Your task to perform on an android device: Search for a coffee table on IKEA Image 0: 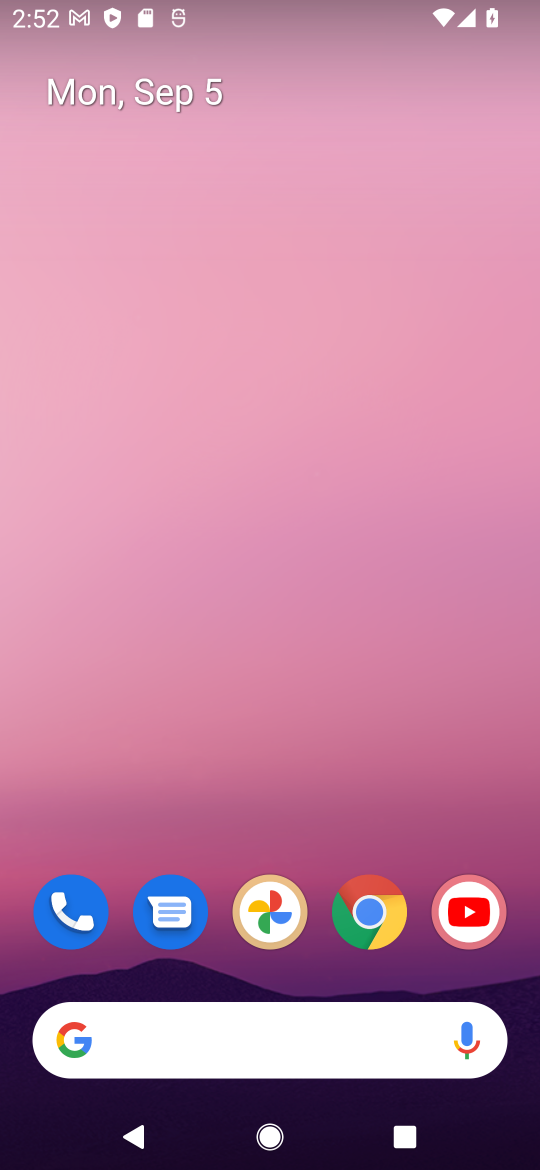
Step 0: click (370, 931)
Your task to perform on an android device: Search for a coffee table on IKEA Image 1: 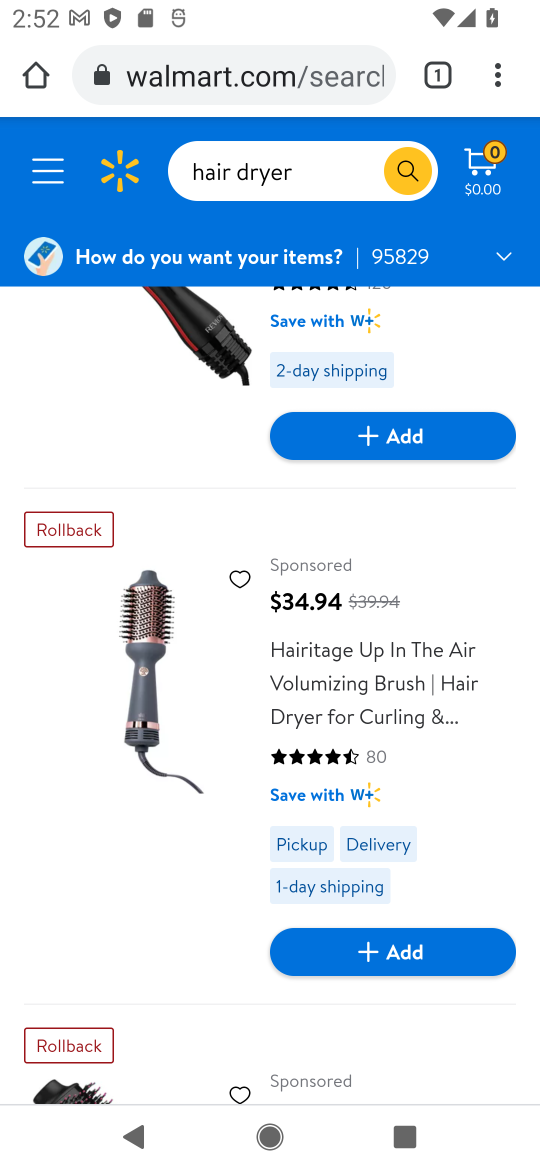
Step 1: click (224, 64)
Your task to perform on an android device: Search for a coffee table on IKEA Image 2: 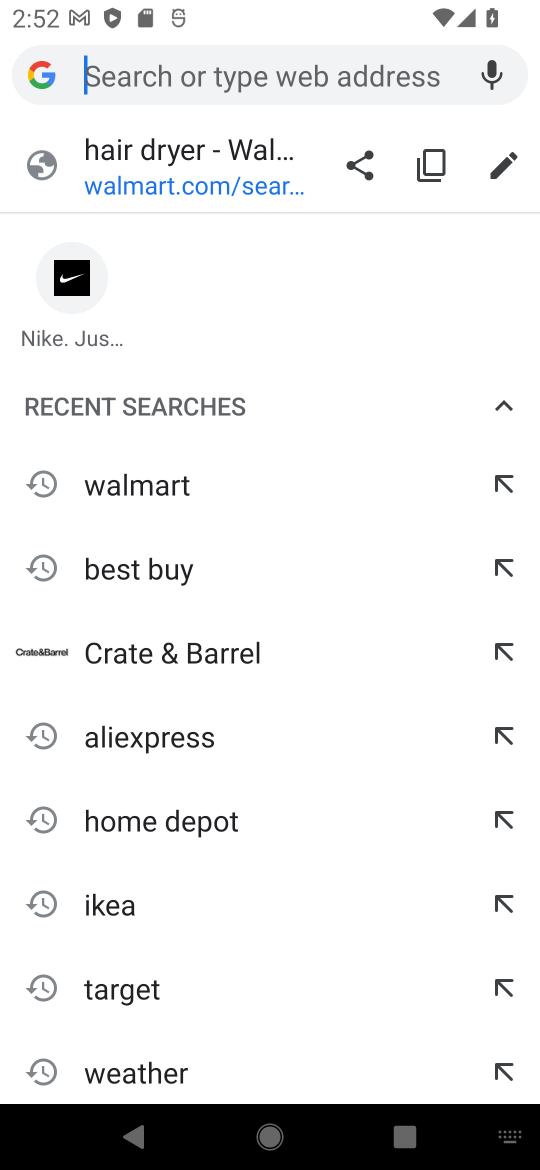
Step 2: type "ikea"
Your task to perform on an android device: Search for a coffee table on IKEA Image 3: 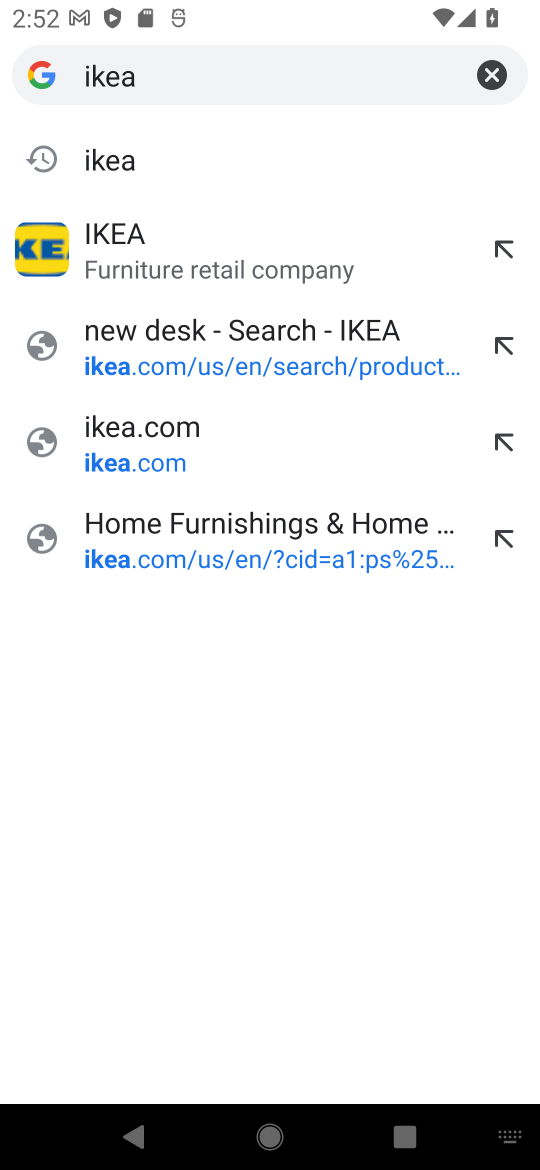
Step 3: press enter
Your task to perform on an android device: Search for a coffee table on IKEA Image 4: 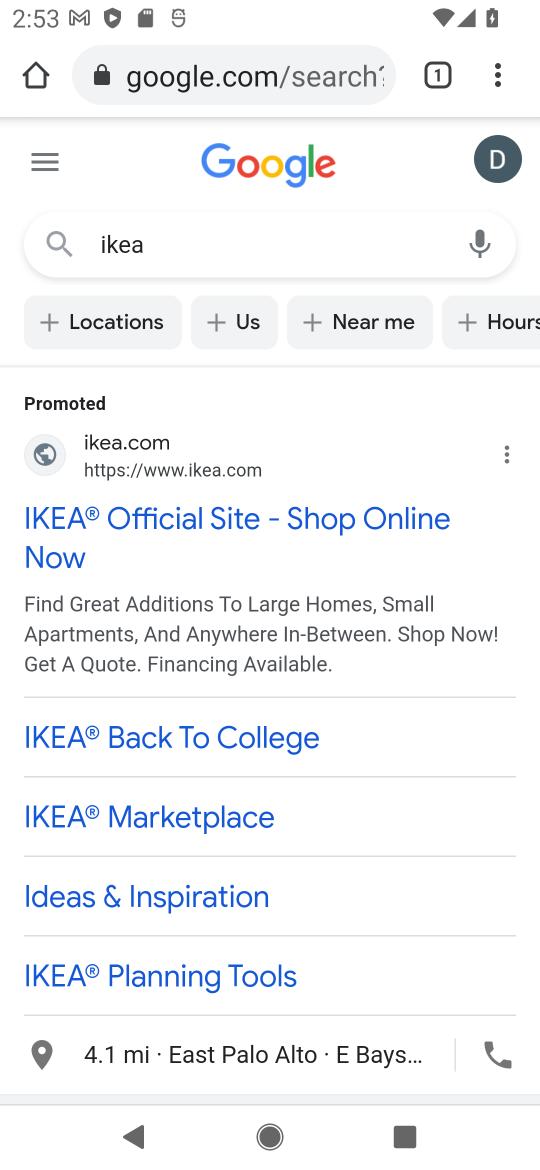
Step 4: click (54, 541)
Your task to perform on an android device: Search for a coffee table on IKEA Image 5: 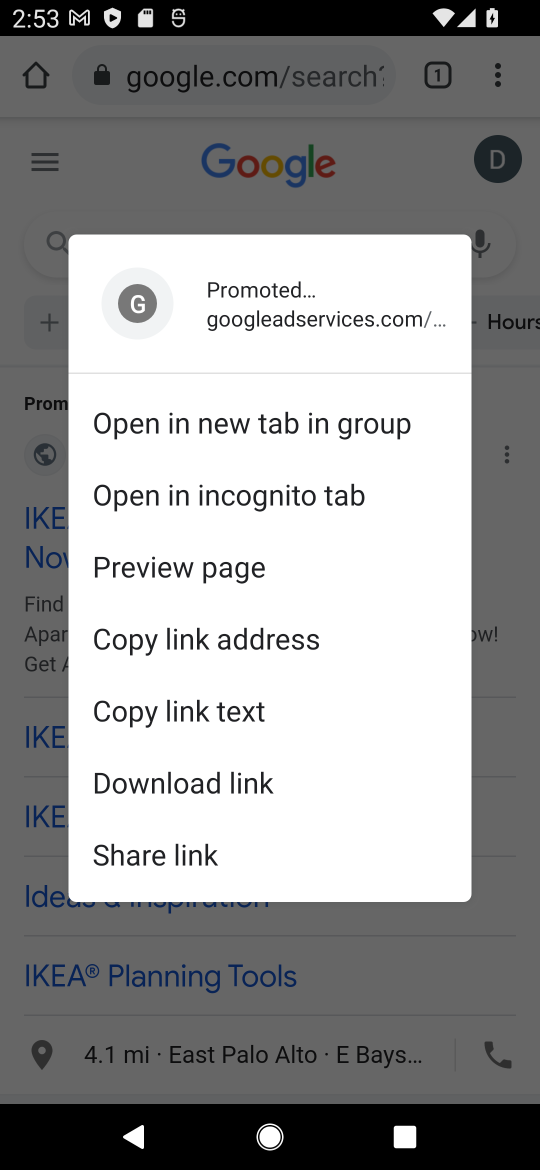
Step 5: click (21, 590)
Your task to perform on an android device: Search for a coffee table on IKEA Image 6: 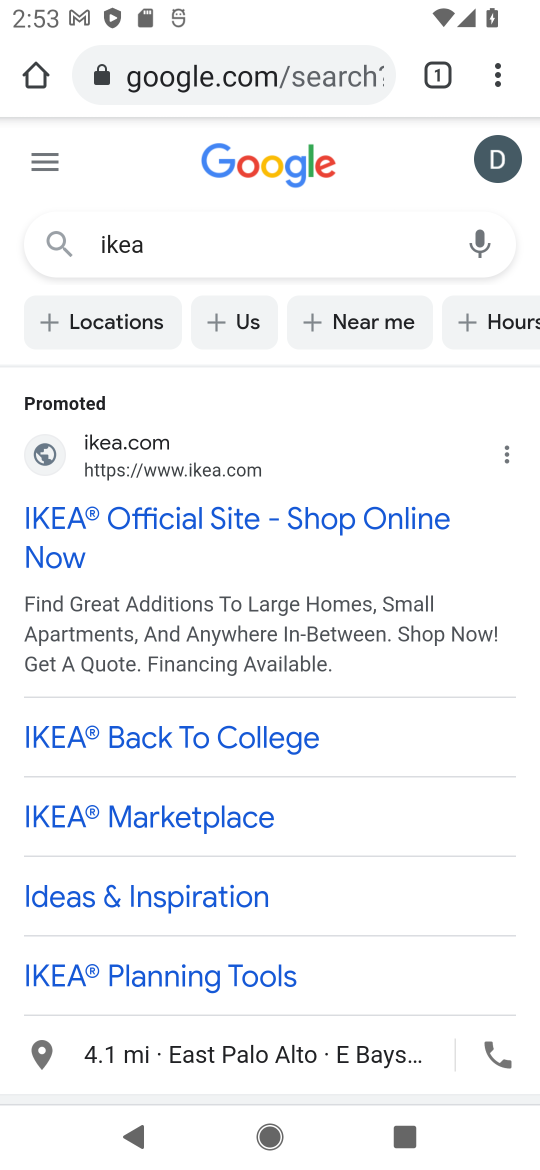
Step 6: click (78, 518)
Your task to perform on an android device: Search for a coffee table on IKEA Image 7: 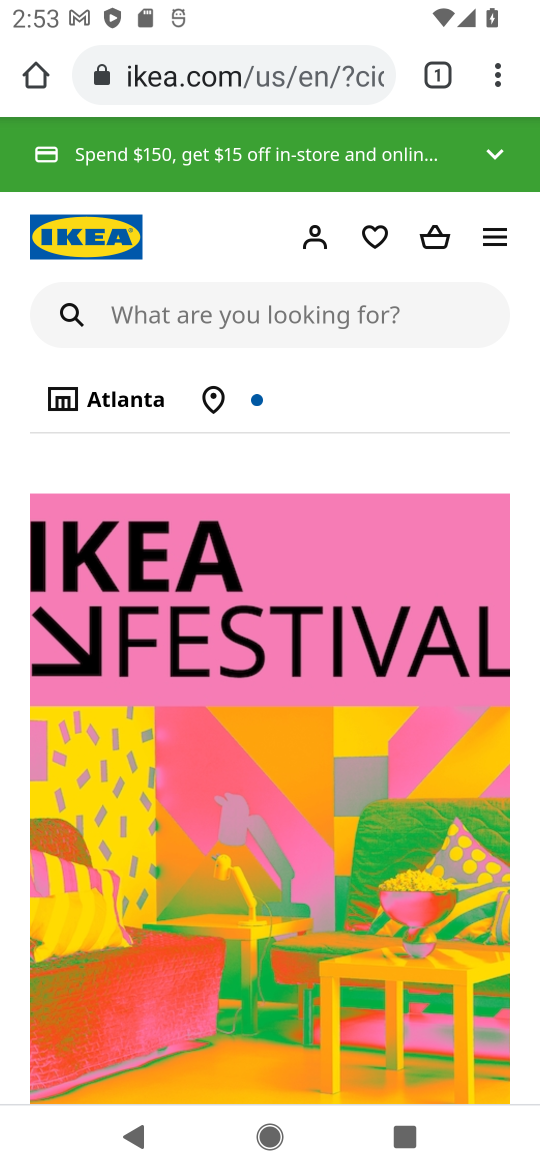
Step 7: click (224, 307)
Your task to perform on an android device: Search for a coffee table on IKEA Image 8: 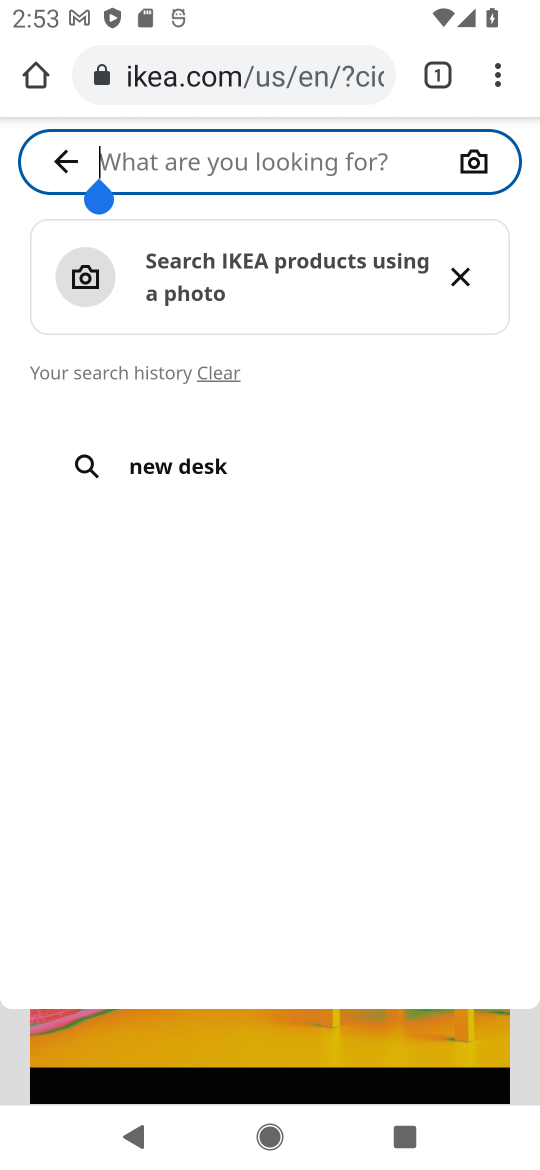
Step 8: type "coffee table"
Your task to perform on an android device: Search for a coffee table on IKEA Image 9: 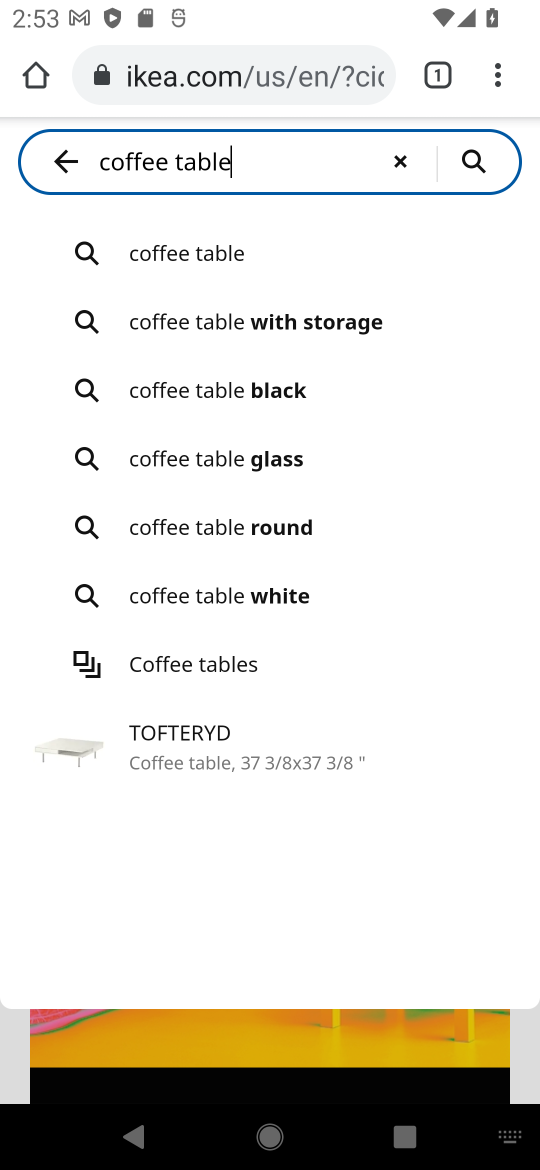
Step 9: press enter
Your task to perform on an android device: Search for a coffee table on IKEA Image 10: 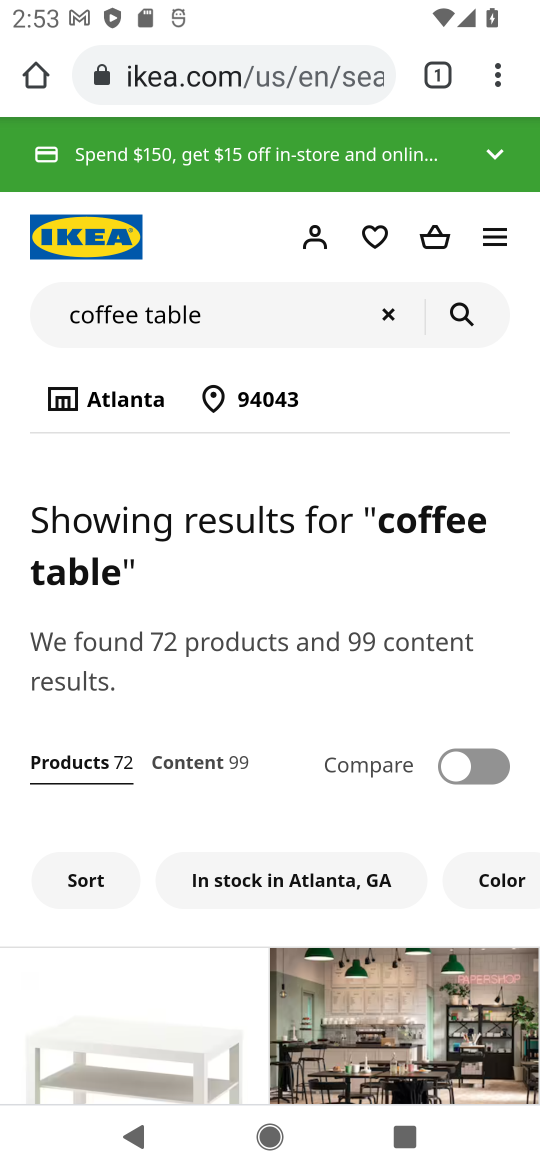
Step 10: task complete